Your task to perform on an android device: find photos in the google photos app Image 0: 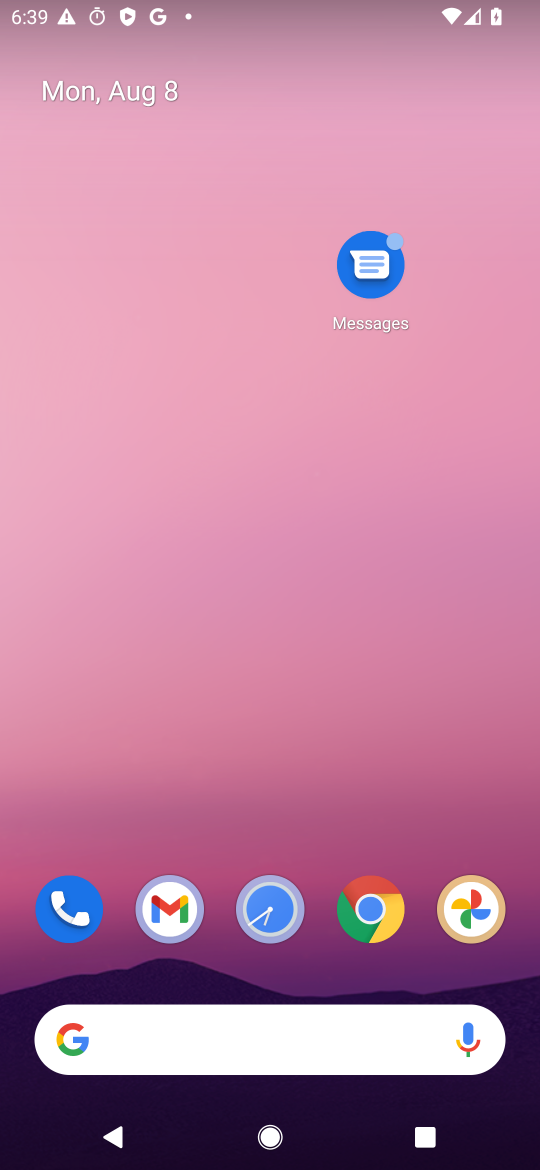
Step 0: drag from (223, 1054) to (489, 45)
Your task to perform on an android device: find photos in the google photos app Image 1: 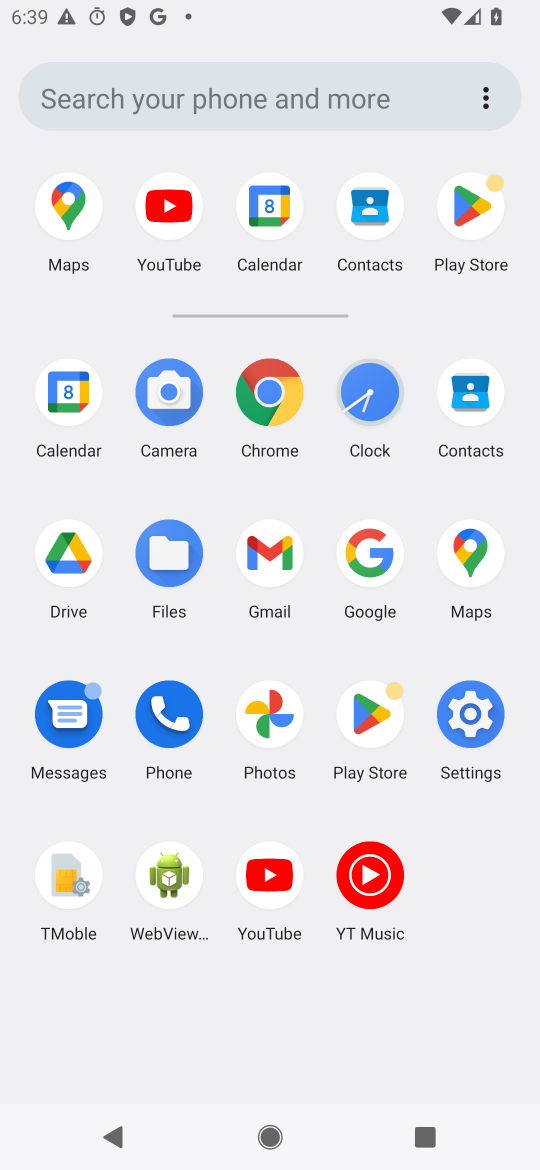
Step 1: click (271, 708)
Your task to perform on an android device: find photos in the google photos app Image 2: 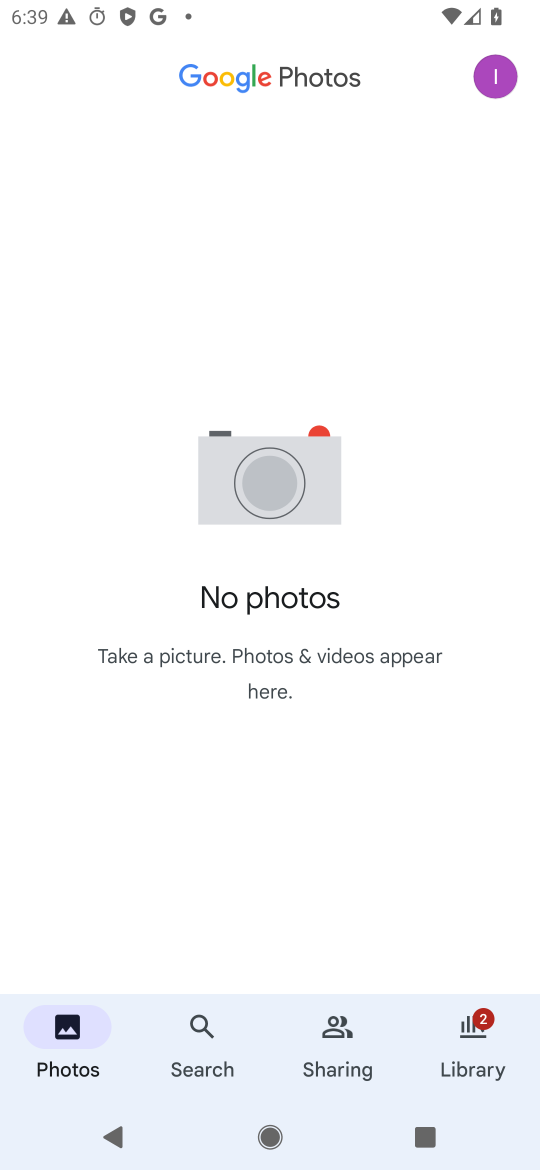
Step 2: click (52, 1002)
Your task to perform on an android device: find photos in the google photos app Image 3: 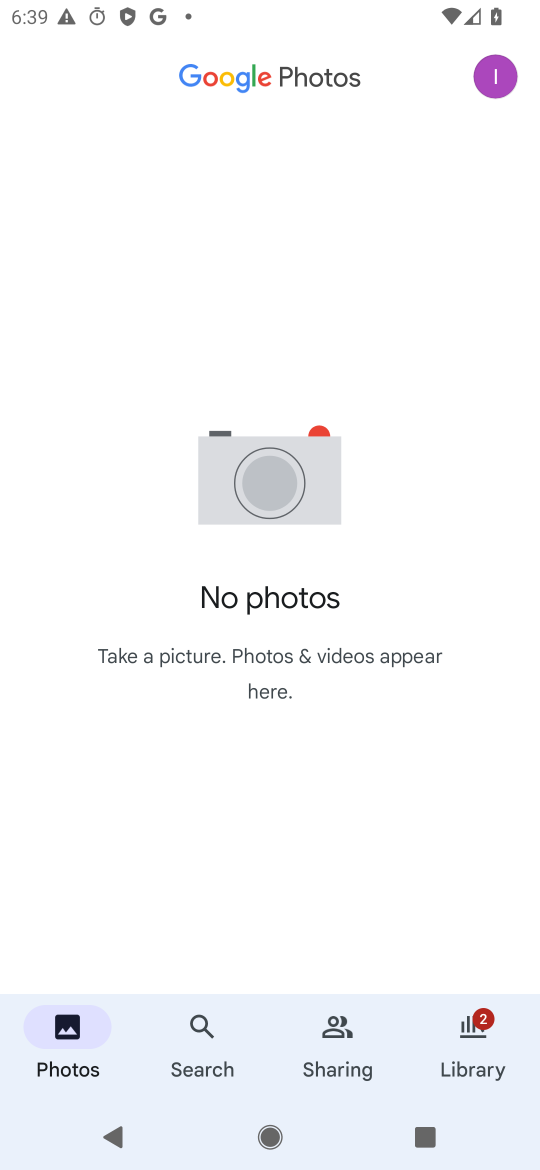
Step 3: task complete